Your task to perform on an android device: change timer sound Image 0: 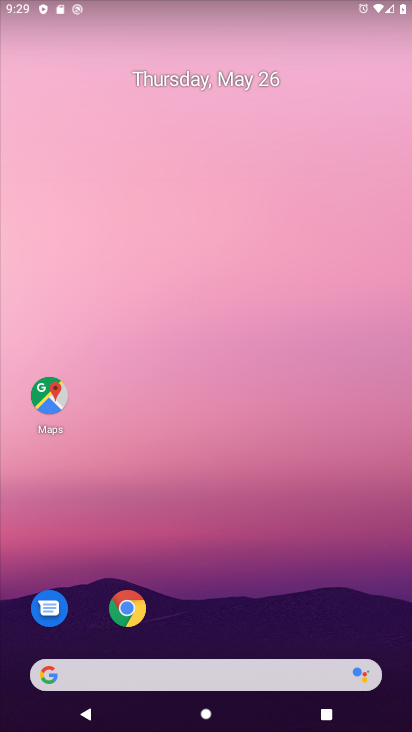
Step 0: drag from (275, 515) to (213, 66)
Your task to perform on an android device: change timer sound Image 1: 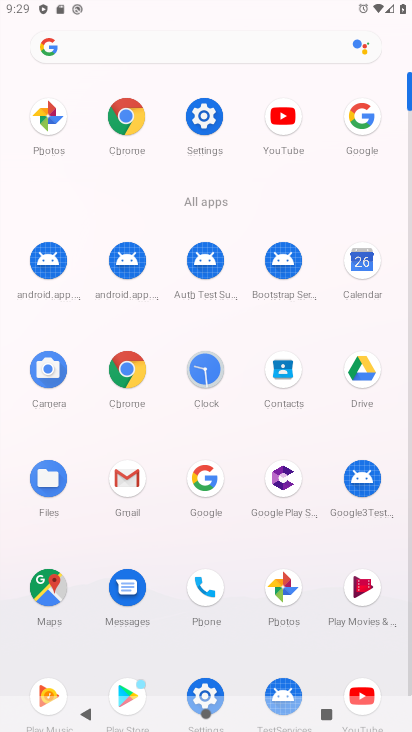
Step 1: click (206, 368)
Your task to perform on an android device: change timer sound Image 2: 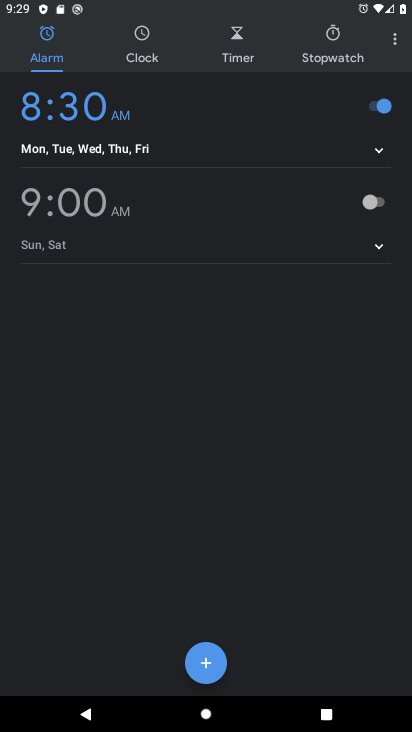
Step 2: click (392, 39)
Your task to perform on an android device: change timer sound Image 3: 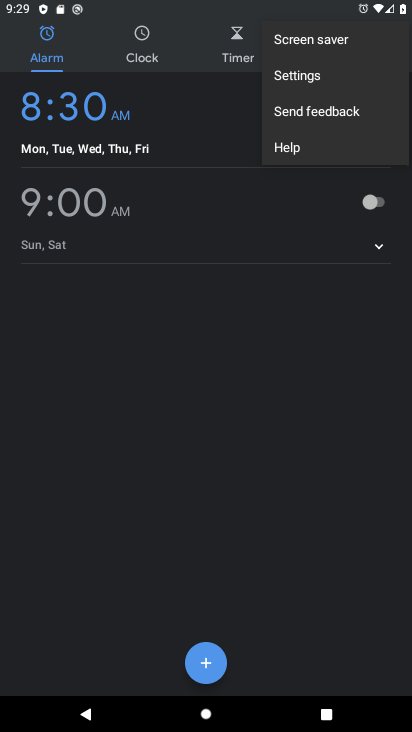
Step 3: click (296, 78)
Your task to perform on an android device: change timer sound Image 4: 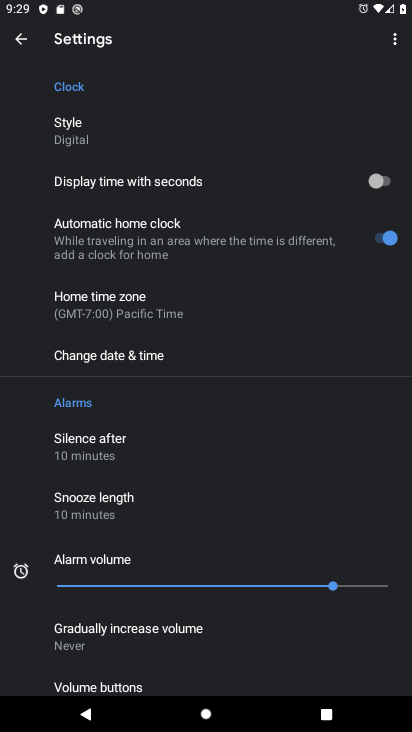
Step 4: drag from (204, 630) to (208, 309)
Your task to perform on an android device: change timer sound Image 5: 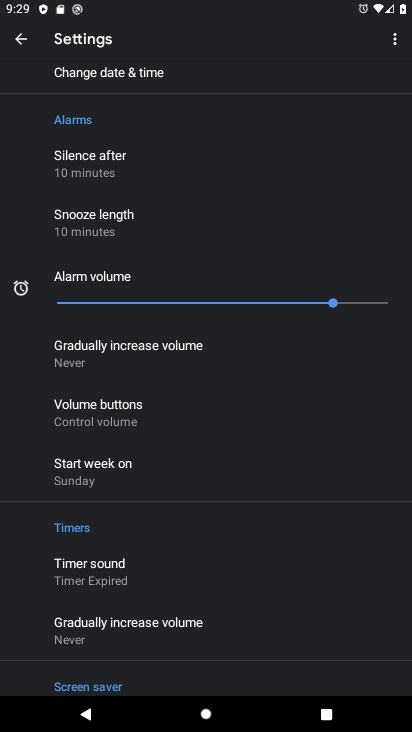
Step 5: click (158, 589)
Your task to perform on an android device: change timer sound Image 6: 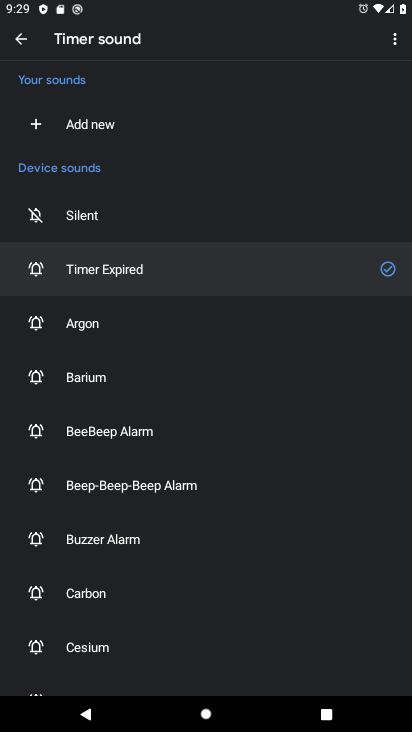
Step 6: click (200, 328)
Your task to perform on an android device: change timer sound Image 7: 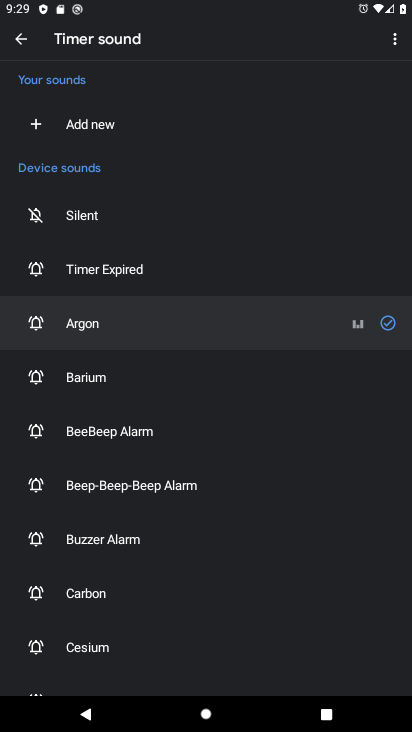
Step 7: task complete